Your task to perform on an android device: Go to wifi settings Image 0: 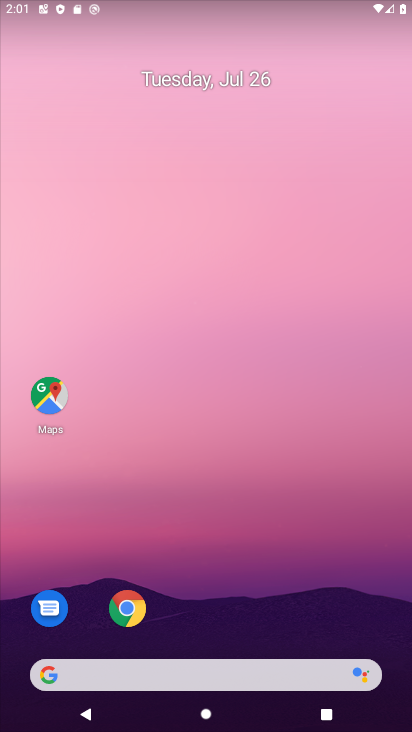
Step 0: drag from (345, 613) to (136, 16)
Your task to perform on an android device: Go to wifi settings Image 1: 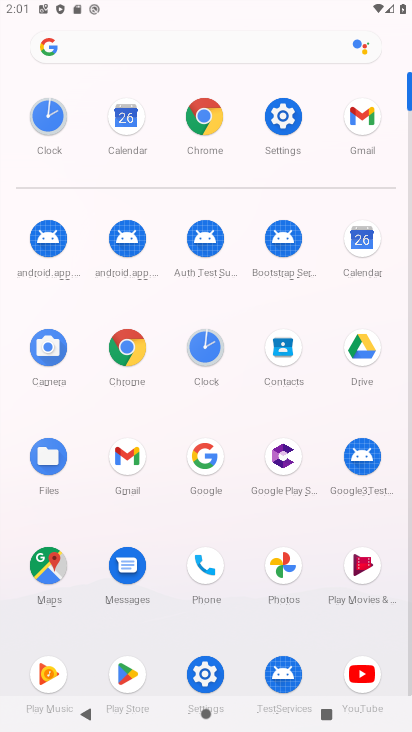
Step 1: click (283, 158)
Your task to perform on an android device: Go to wifi settings Image 2: 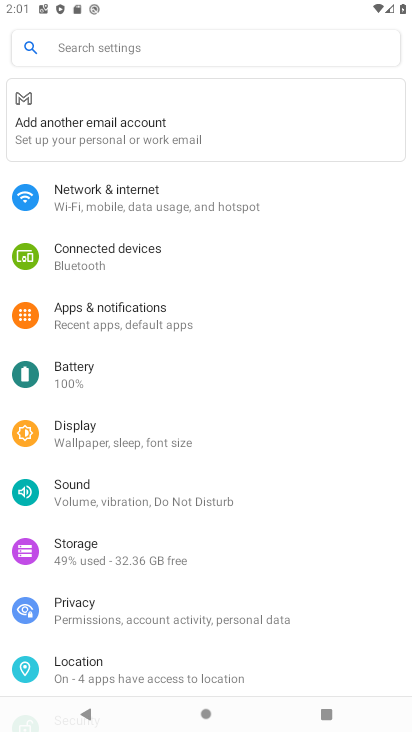
Step 2: click (95, 213)
Your task to perform on an android device: Go to wifi settings Image 3: 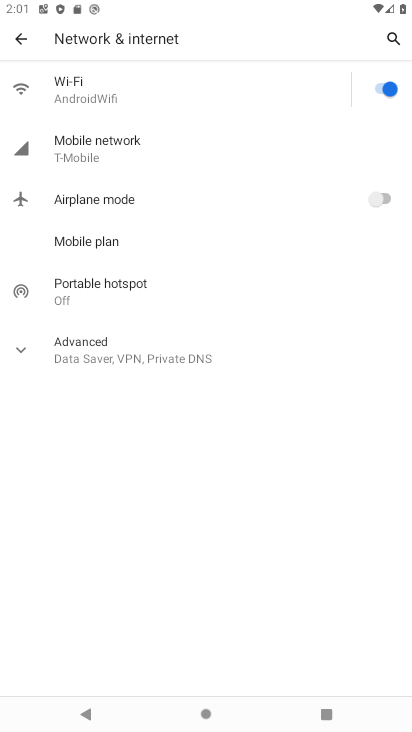
Step 3: task complete